Your task to perform on an android device: Go to CNN.com Image 0: 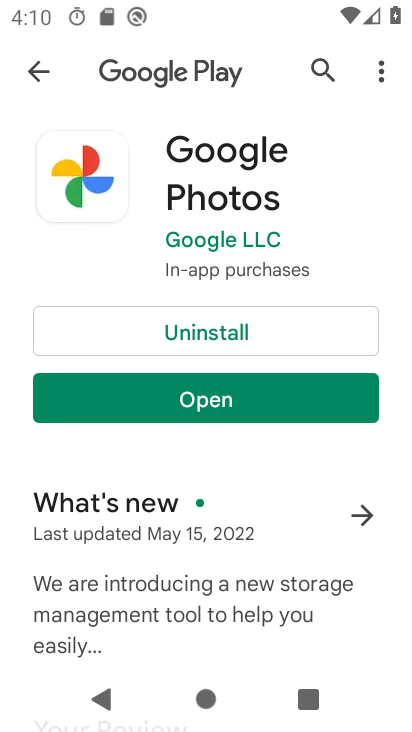
Step 0: press home button
Your task to perform on an android device: Go to CNN.com Image 1: 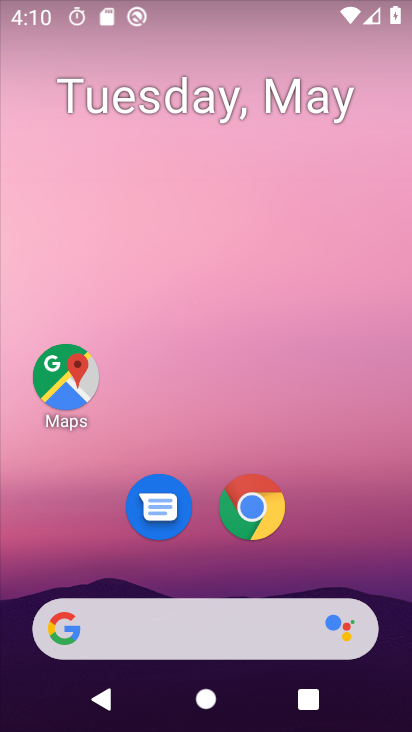
Step 1: click (254, 503)
Your task to perform on an android device: Go to CNN.com Image 2: 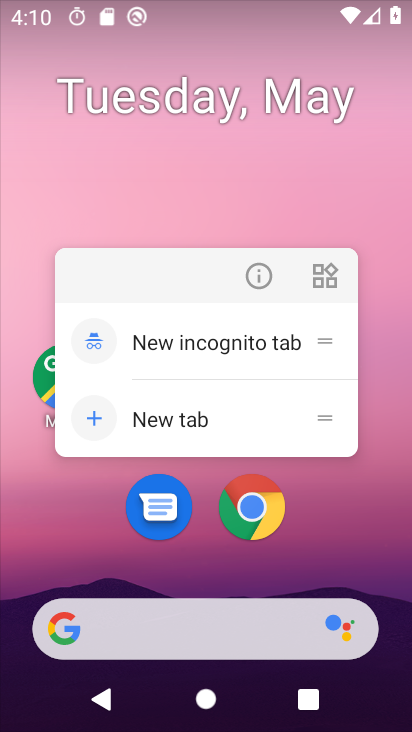
Step 2: click (253, 503)
Your task to perform on an android device: Go to CNN.com Image 3: 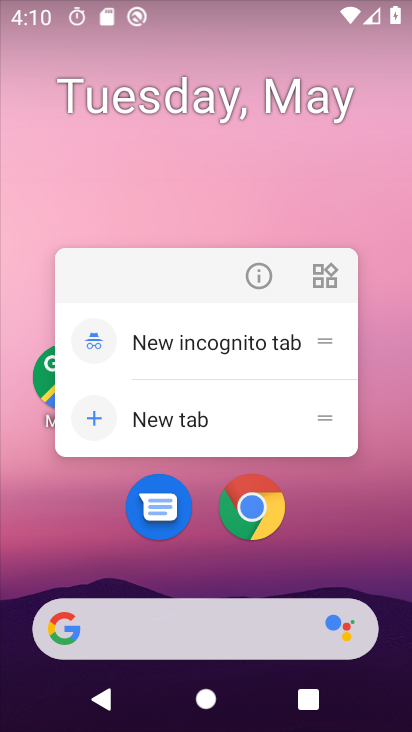
Step 3: click (254, 502)
Your task to perform on an android device: Go to CNN.com Image 4: 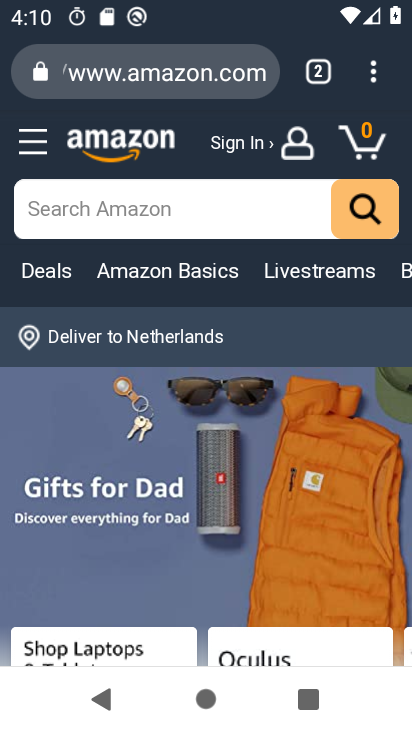
Step 4: click (162, 72)
Your task to perform on an android device: Go to CNN.com Image 5: 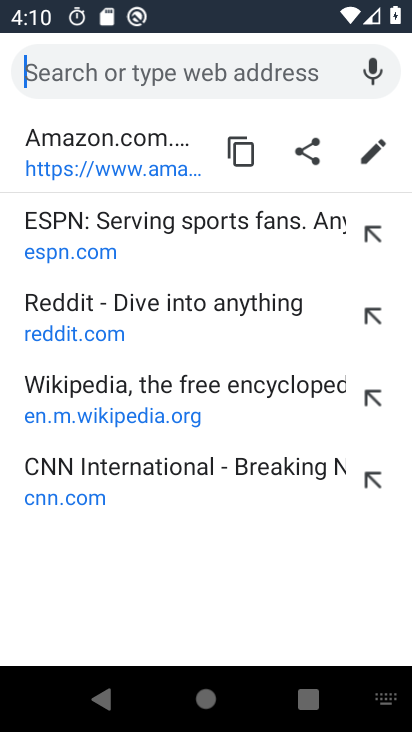
Step 5: type "CNN.com"
Your task to perform on an android device: Go to CNN.com Image 6: 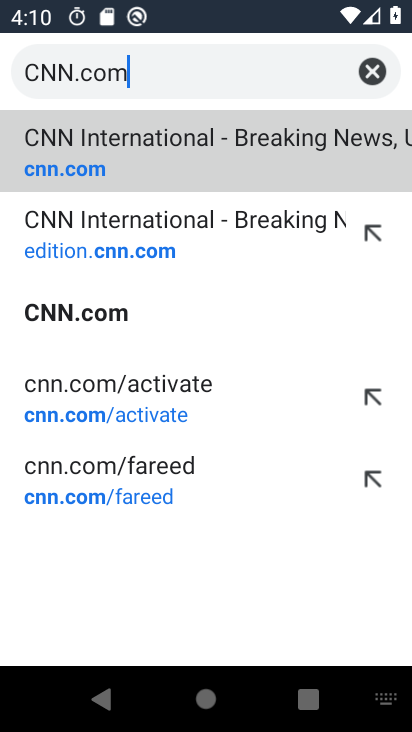
Step 6: click (76, 163)
Your task to perform on an android device: Go to CNN.com Image 7: 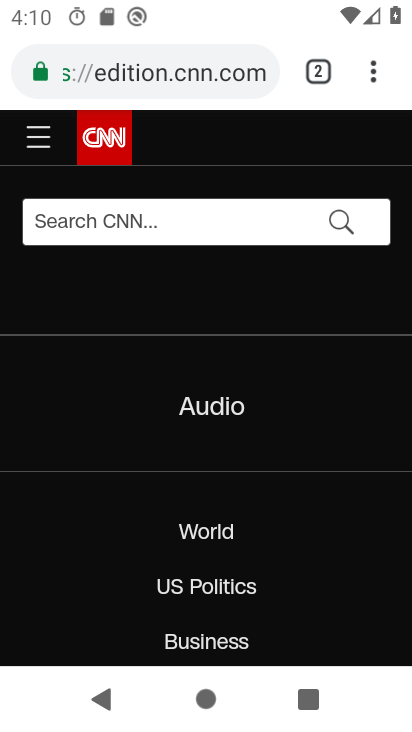
Step 7: task complete